Your task to perform on an android device: Open network settings Image 0: 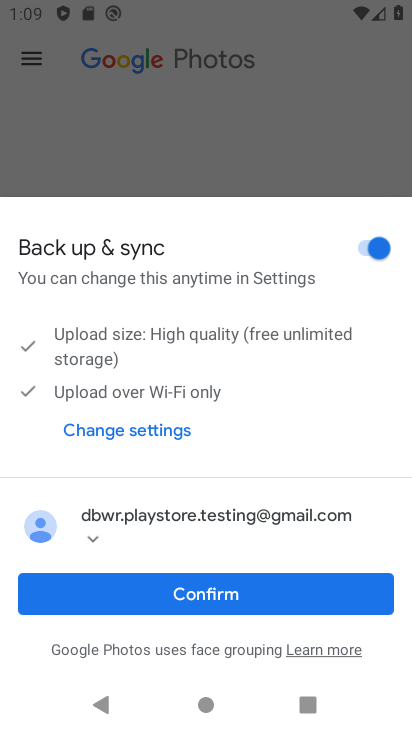
Step 0: press home button
Your task to perform on an android device: Open network settings Image 1: 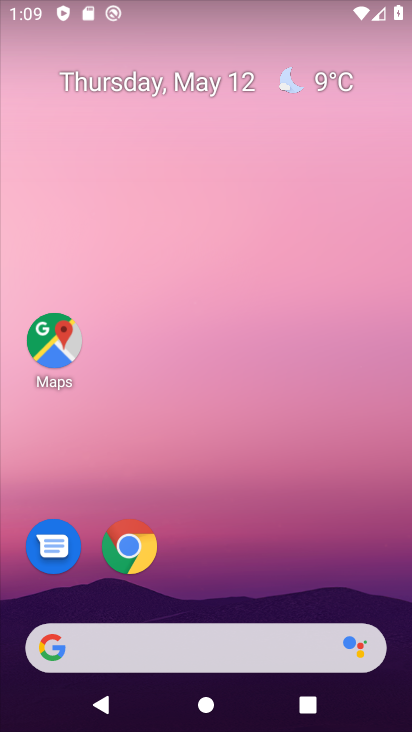
Step 1: drag from (259, 635) to (286, 289)
Your task to perform on an android device: Open network settings Image 2: 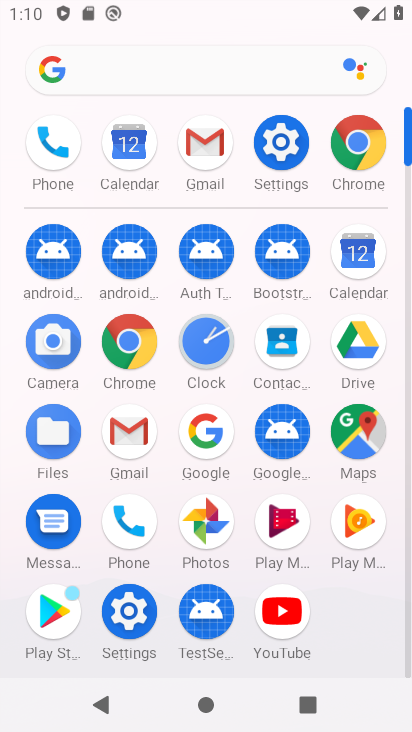
Step 2: click (129, 623)
Your task to perform on an android device: Open network settings Image 3: 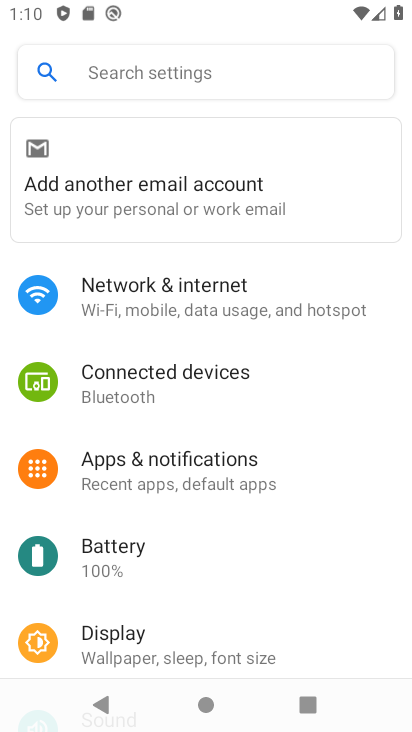
Step 3: click (204, 289)
Your task to perform on an android device: Open network settings Image 4: 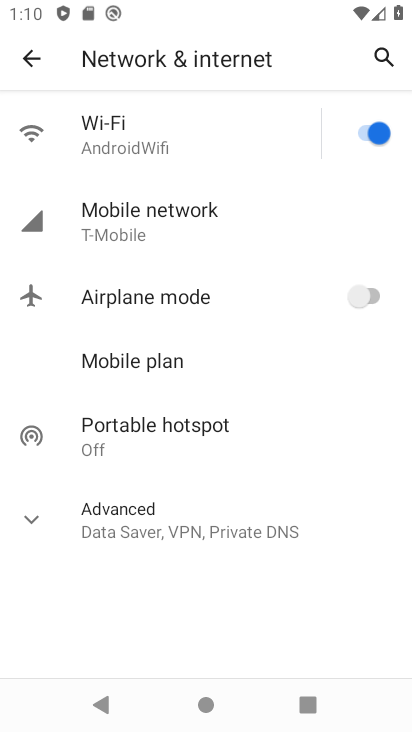
Step 4: task complete